Your task to perform on an android device: visit the assistant section in the google photos Image 0: 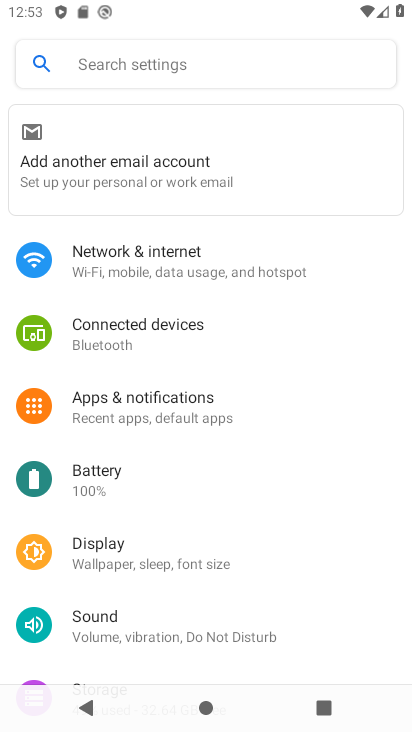
Step 0: press home button
Your task to perform on an android device: visit the assistant section in the google photos Image 1: 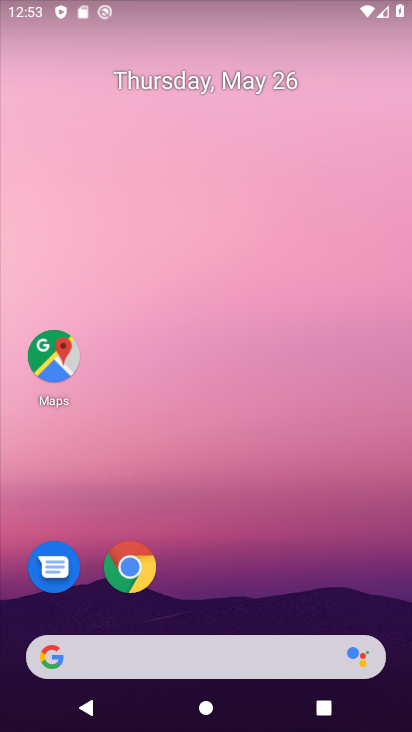
Step 1: drag from (234, 561) to (220, 80)
Your task to perform on an android device: visit the assistant section in the google photos Image 2: 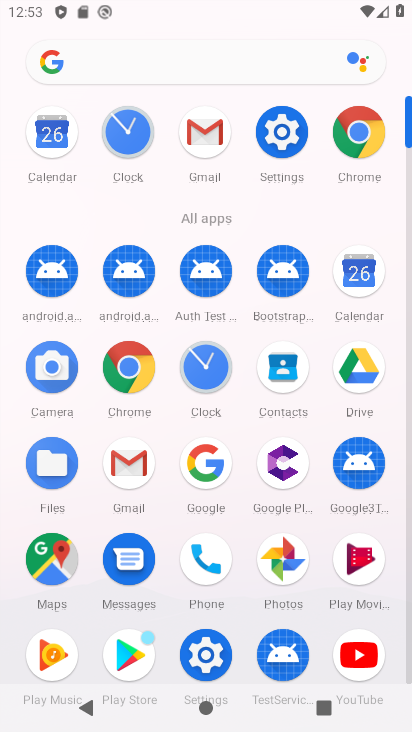
Step 2: click (275, 550)
Your task to perform on an android device: visit the assistant section in the google photos Image 3: 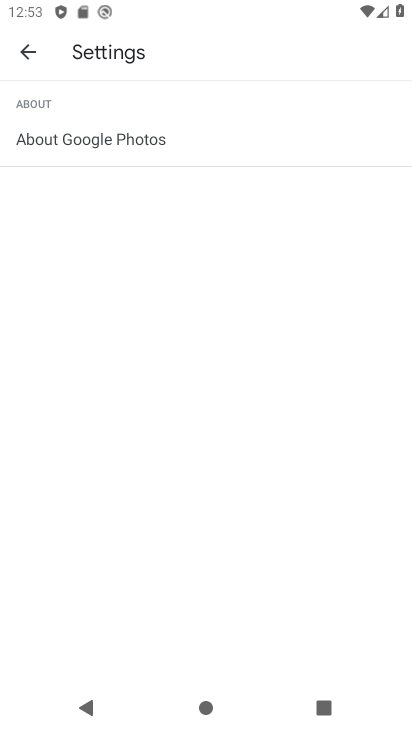
Step 3: press back button
Your task to perform on an android device: visit the assistant section in the google photos Image 4: 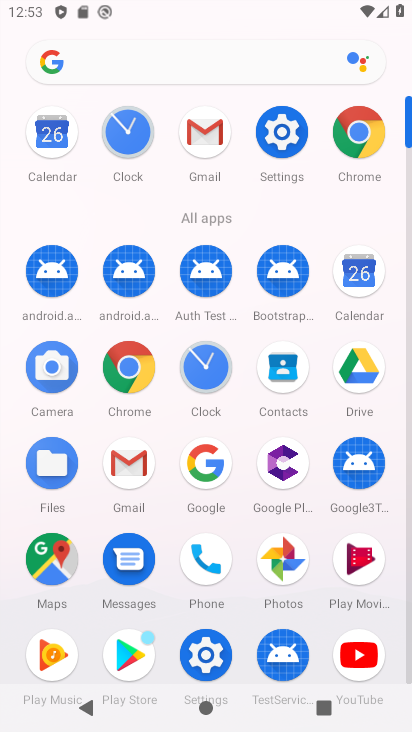
Step 4: click (289, 549)
Your task to perform on an android device: visit the assistant section in the google photos Image 5: 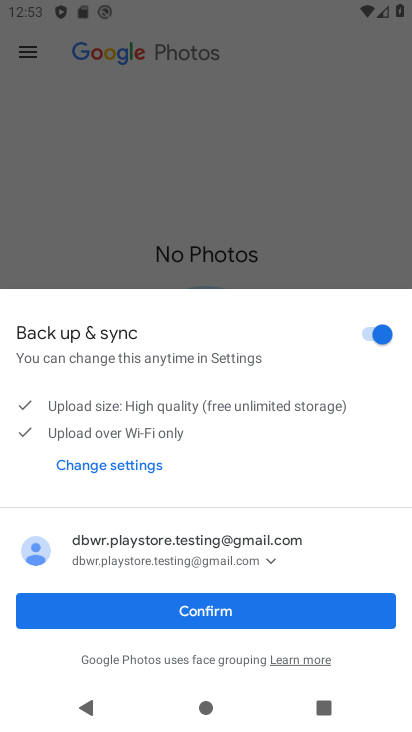
Step 5: click (217, 611)
Your task to perform on an android device: visit the assistant section in the google photos Image 6: 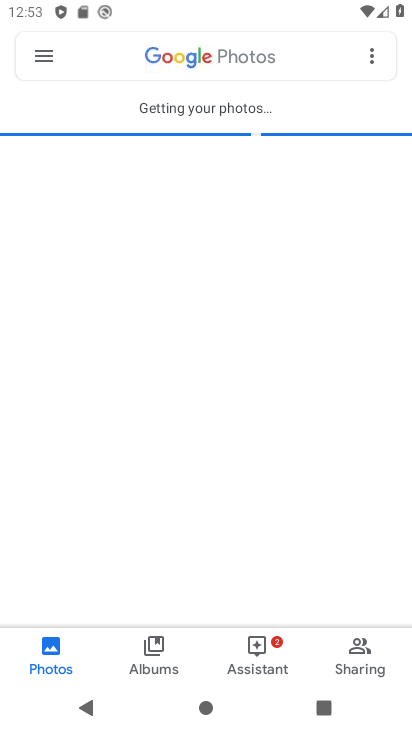
Step 6: click (252, 656)
Your task to perform on an android device: visit the assistant section in the google photos Image 7: 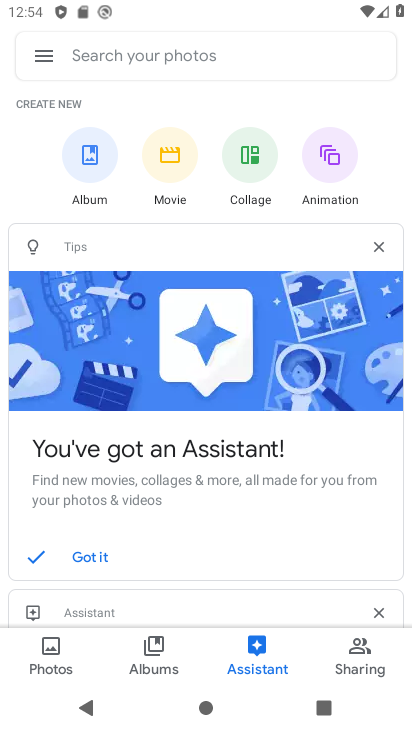
Step 7: task complete